Your task to perform on an android device: Open the calendar app, open the side menu, and click the "Day" option Image 0: 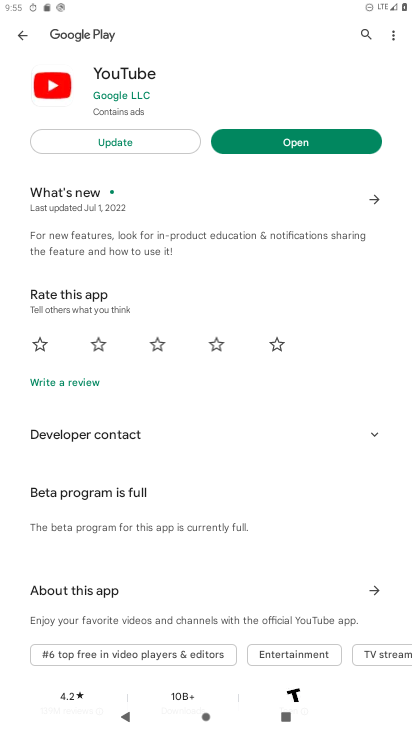
Step 0: press home button
Your task to perform on an android device: Open the calendar app, open the side menu, and click the "Day" option Image 1: 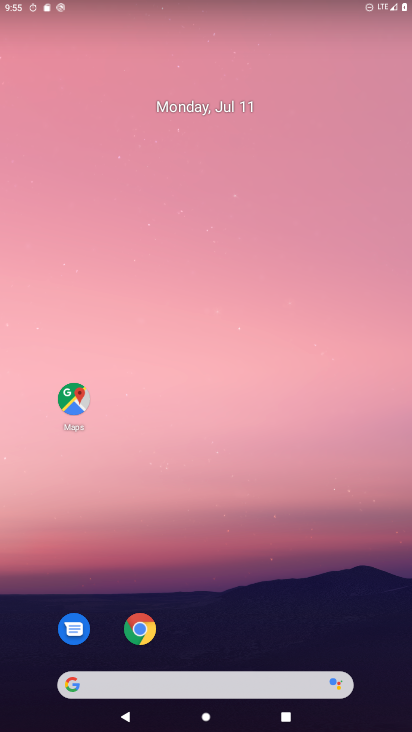
Step 1: click (210, 100)
Your task to perform on an android device: Open the calendar app, open the side menu, and click the "Day" option Image 2: 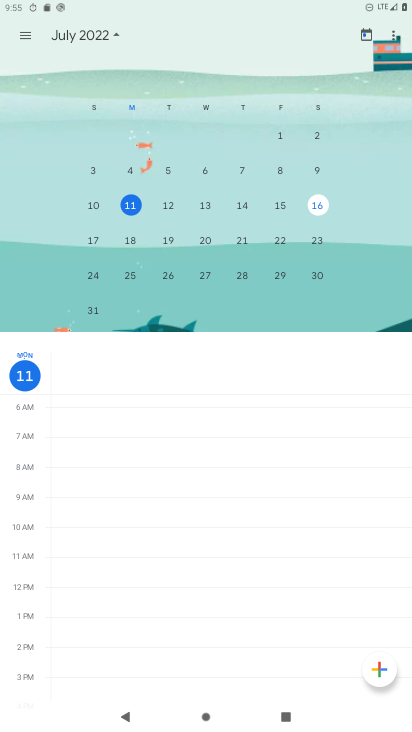
Step 2: click (30, 36)
Your task to perform on an android device: Open the calendar app, open the side menu, and click the "Day" option Image 3: 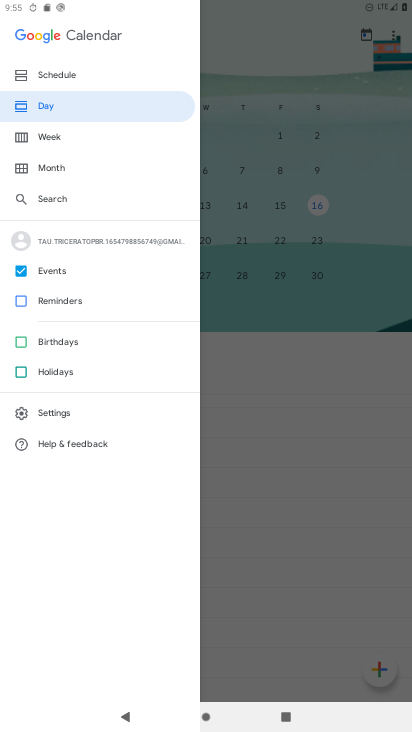
Step 3: click (73, 103)
Your task to perform on an android device: Open the calendar app, open the side menu, and click the "Day" option Image 4: 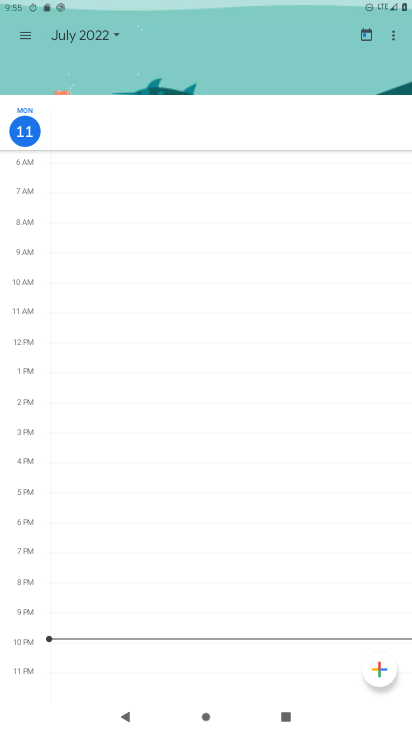
Step 4: task complete